Your task to perform on an android device: Go to wifi settings Image 0: 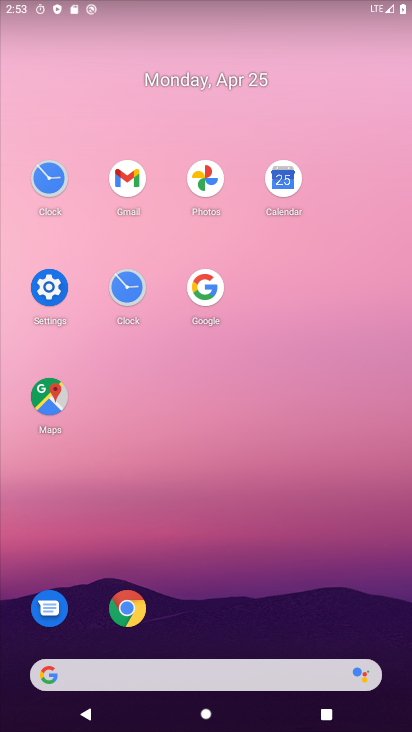
Step 0: click (55, 296)
Your task to perform on an android device: Go to wifi settings Image 1: 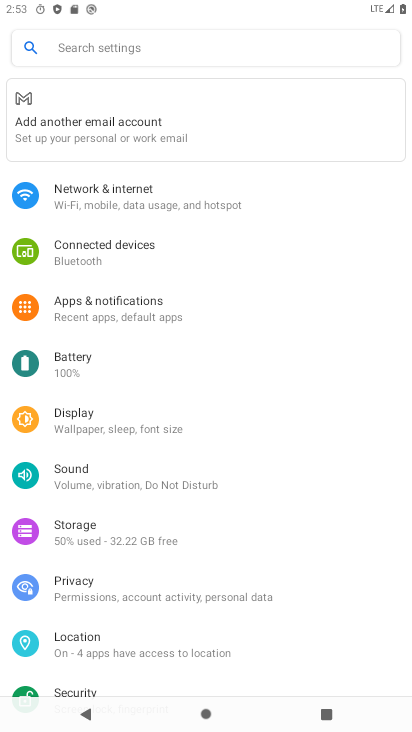
Step 1: click (156, 178)
Your task to perform on an android device: Go to wifi settings Image 2: 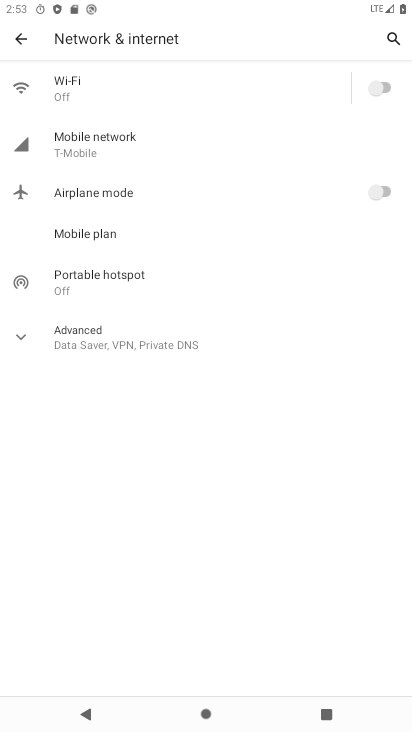
Step 2: click (206, 83)
Your task to perform on an android device: Go to wifi settings Image 3: 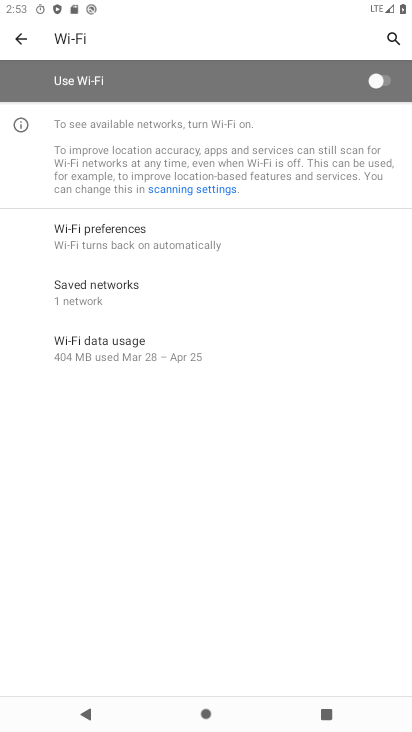
Step 3: click (383, 88)
Your task to perform on an android device: Go to wifi settings Image 4: 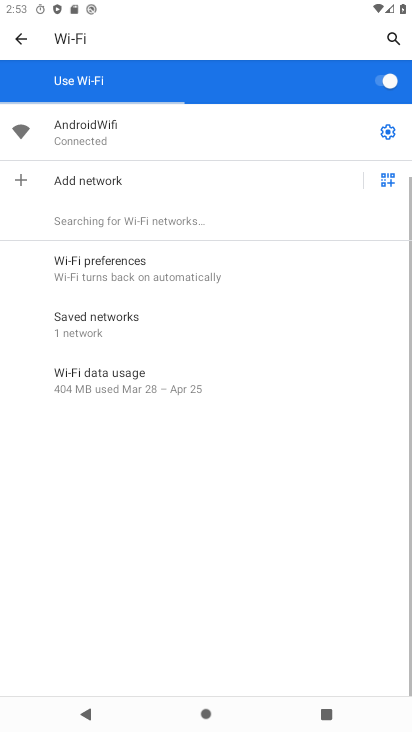
Step 4: click (390, 141)
Your task to perform on an android device: Go to wifi settings Image 5: 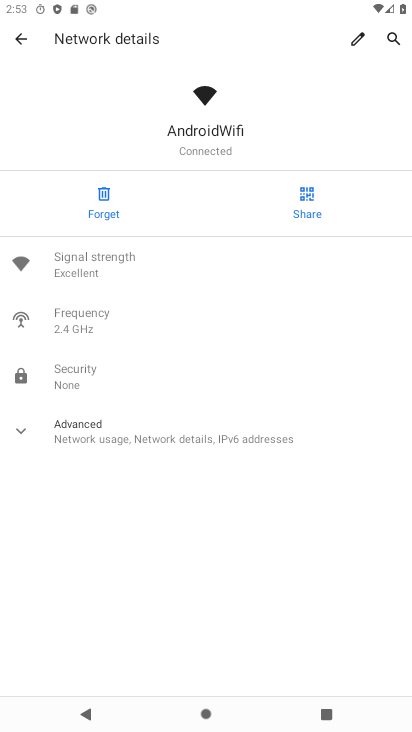
Step 5: task complete